Your task to perform on an android device: Open Maps and search for coffee Image 0: 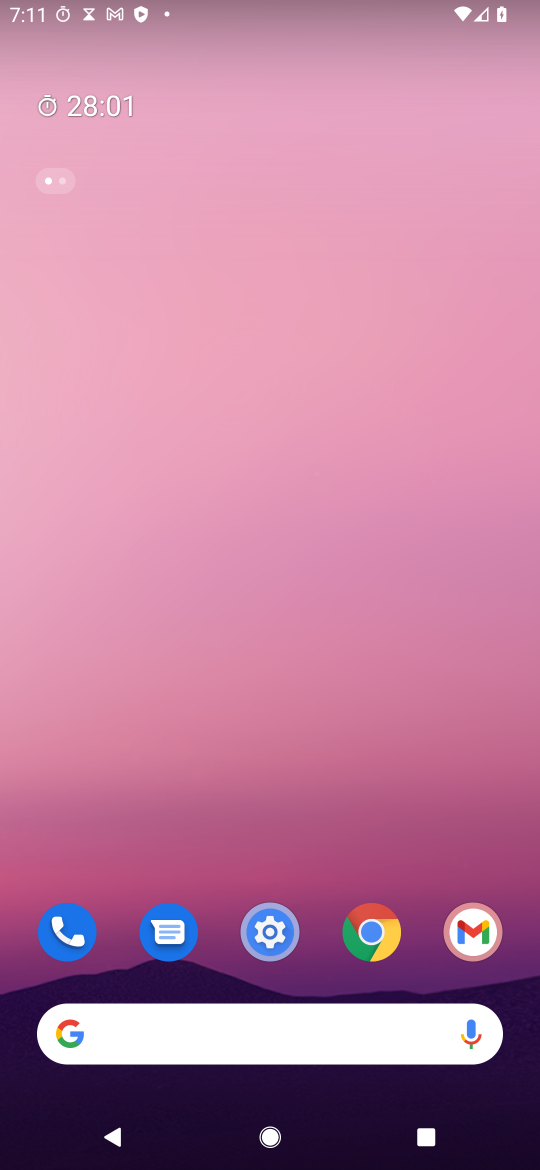
Step 0: drag from (311, 850) to (325, 46)
Your task to perform on an android device: Open Maps and search for coffee Image 1: 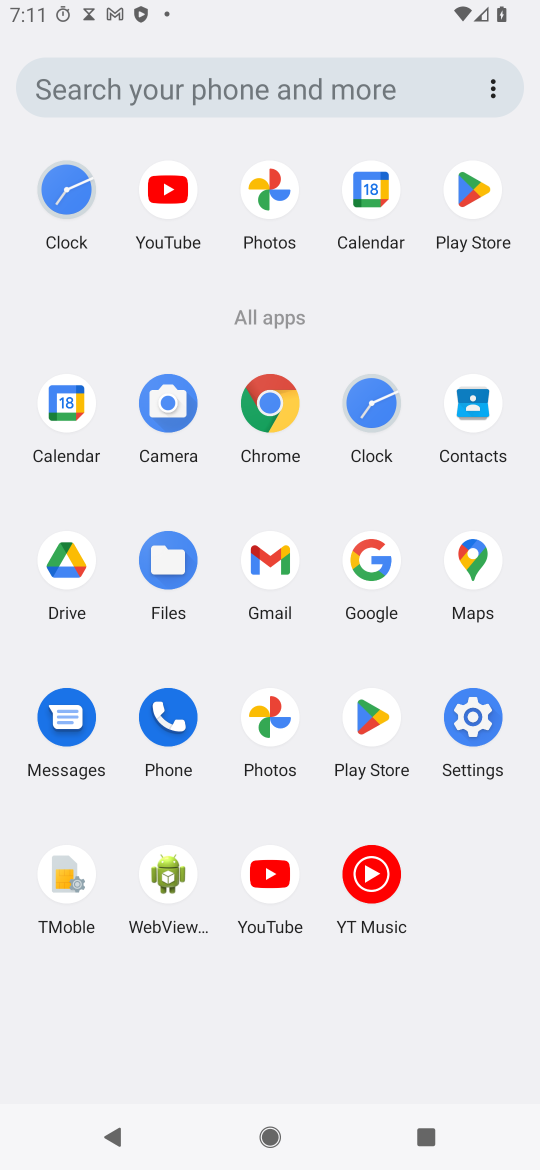
Step 1: click (486, 550)
Your task to perform on an android device: Open Maps and search for coffee Image 2: 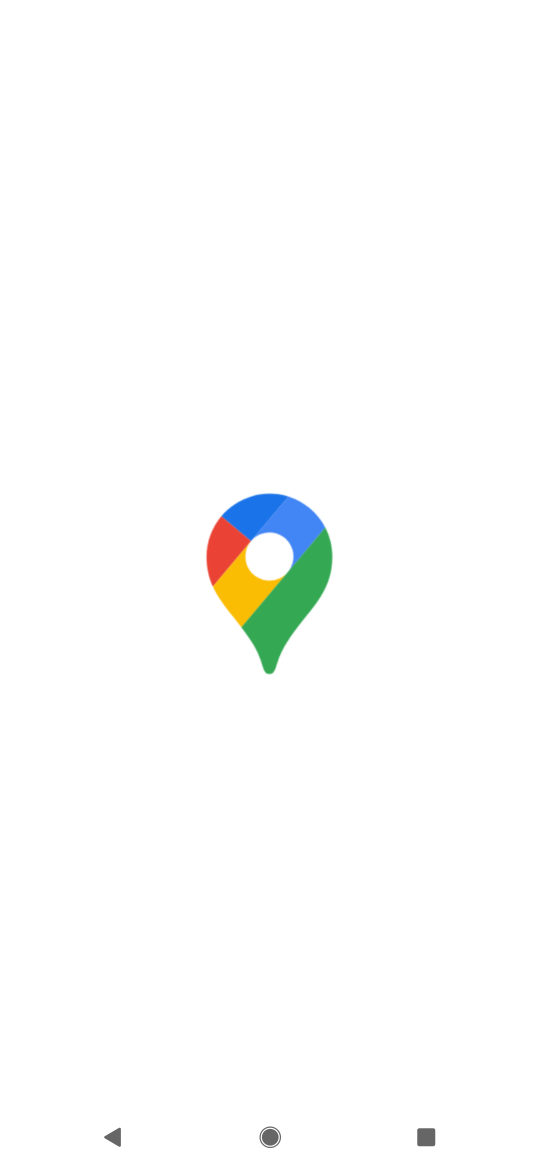
Step 2: task complete